Your task to perform on an android device: Open notification settings Image 0: 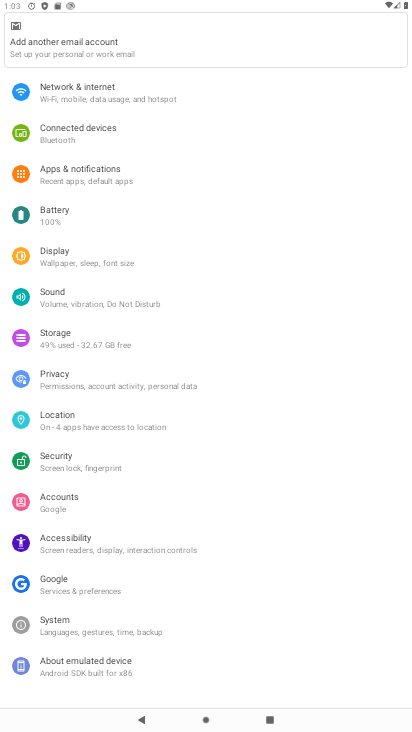
Step 0: click (88, 174)
Your task to perform on an android device: Open notification settings Image 1: 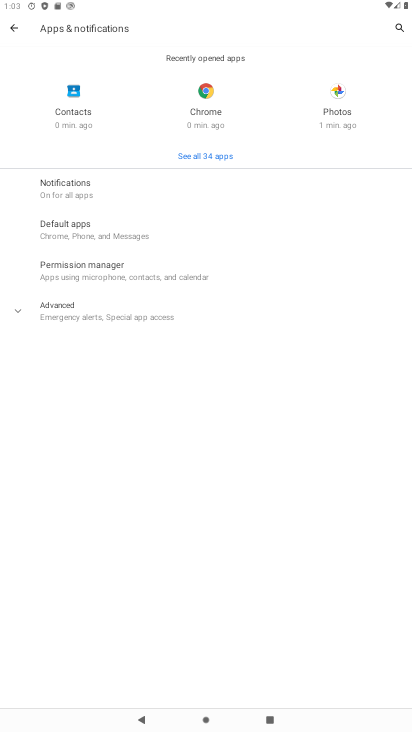
Step 1: click (73, 306)
Your task to perform on an android device: Open notification settings Image 2: 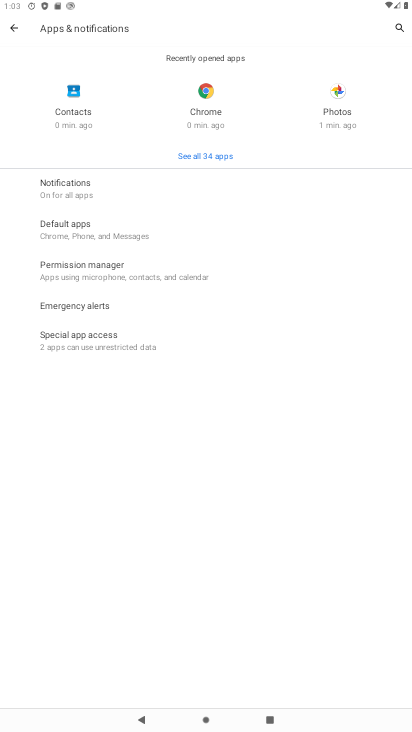
Step 2: click (71, 170)
Your task to perform on an android device: Open notification settings Image 3: 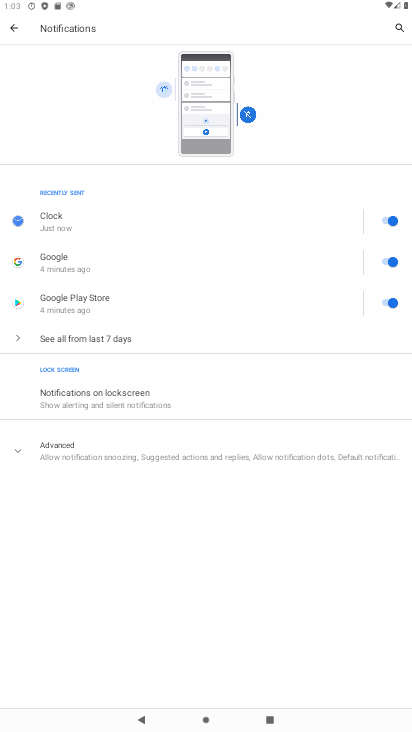
Step 3: task complete